Your task to perform on an android device: Toggle the flashlight Image 0: 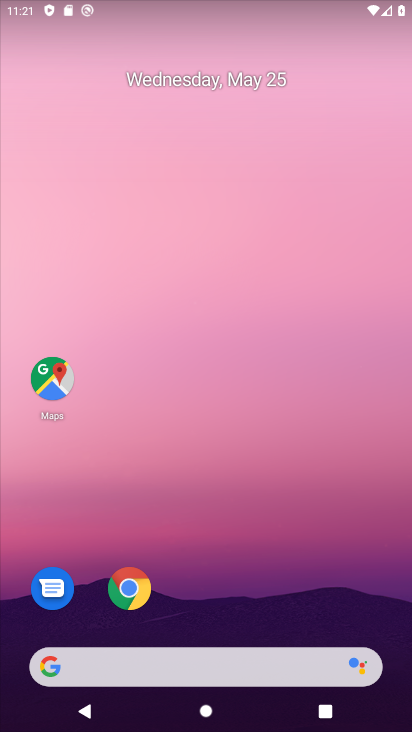
Step 0: drag from (242, 551) to (163, 32)
Your task to perform on an android device: Toggle the flashlight Image 1: 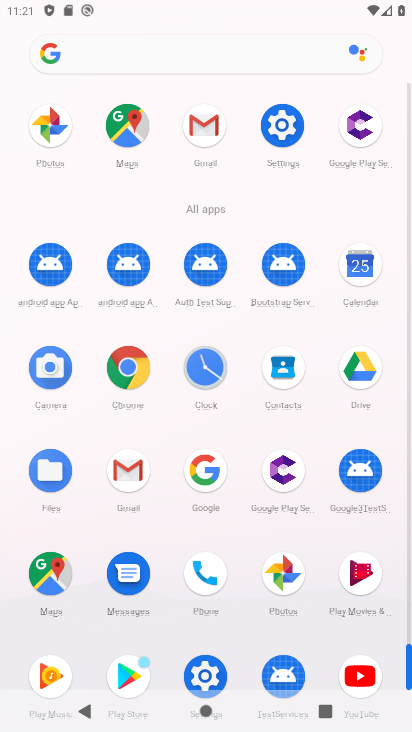
Step 1: drag from (15, 591) to (11, 237)
Your task to perform on an android device: Toggle the flashlight Image 2: 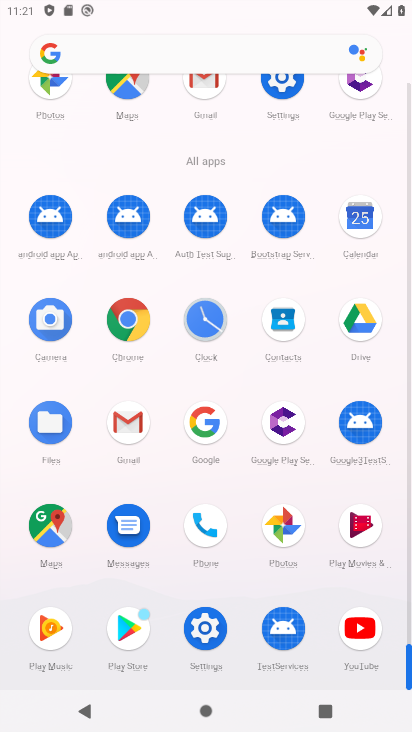
Step 2: click (205, 628)
Your task to perform on an android device: Toggle the flashlight Image 3: 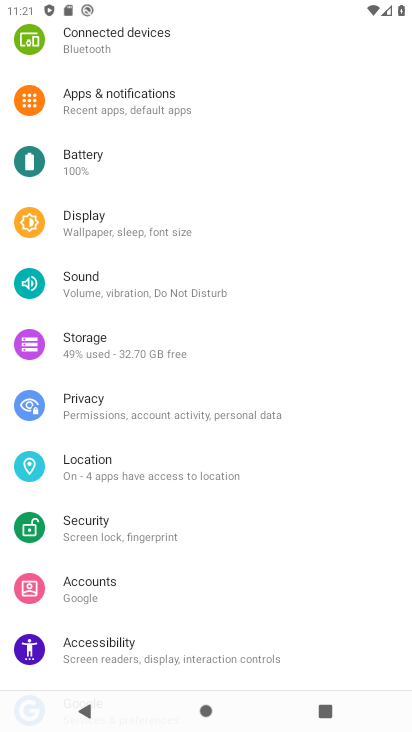
Step 3: drag from (216, 127) to (216, 535)
Your task to perform on an android device: Toggle the flashlight Image 4: 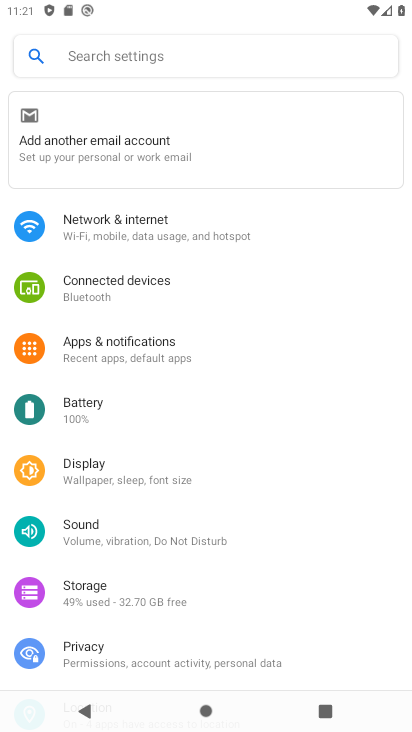
Step 4: click (160, 229)
Your task to perform on an android device: Toggle the flashlight Image 5: 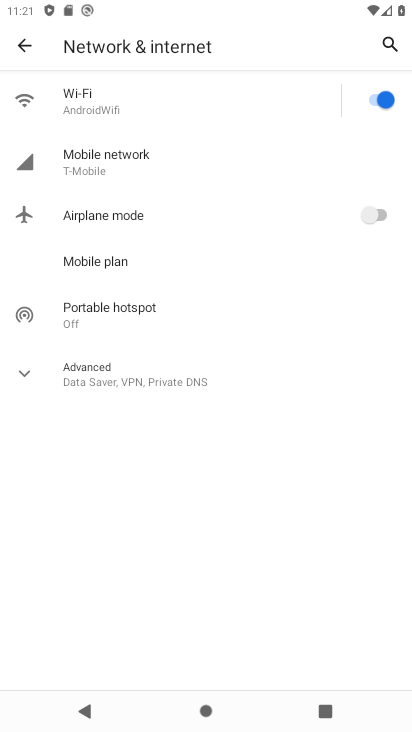
Step 5: click (23, 368)
Your task to perform on an android device: Toggle the flashlight Image 6: 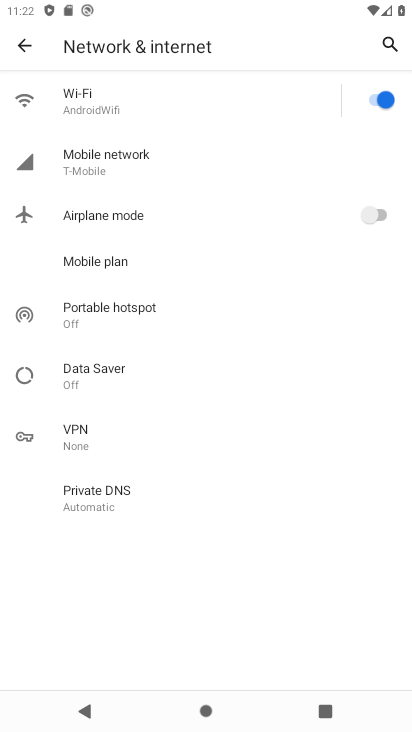
Step 6: task complete